Your task to perform on an android device: Open Google Image 0: 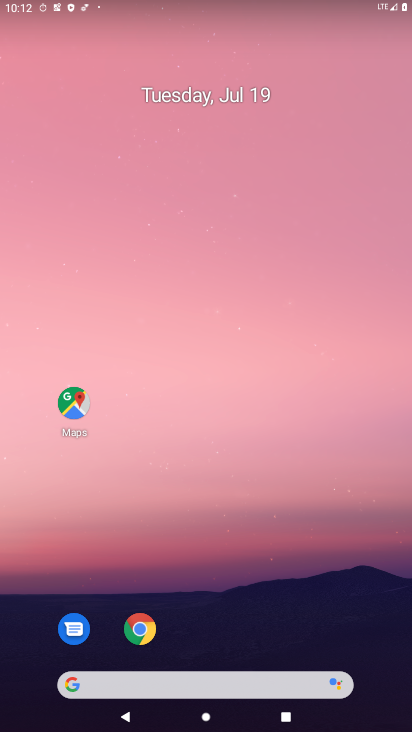
Step 0: click (75, 679)
Your task to perform on an android device: Open Google Image 1: 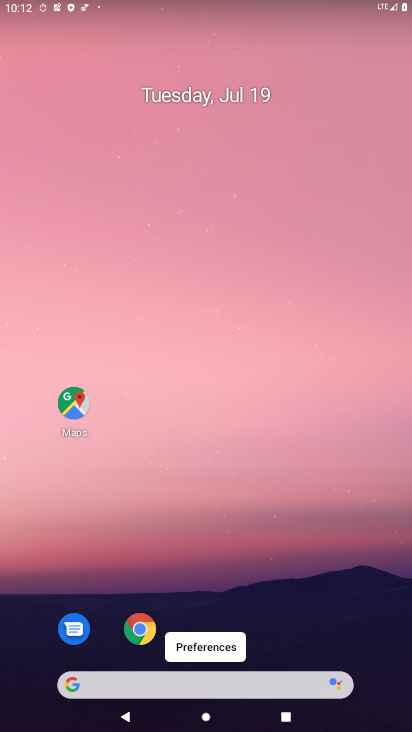
Step 1: click (74, 683)
Your task to perform on an android device: Open Google Image 2: 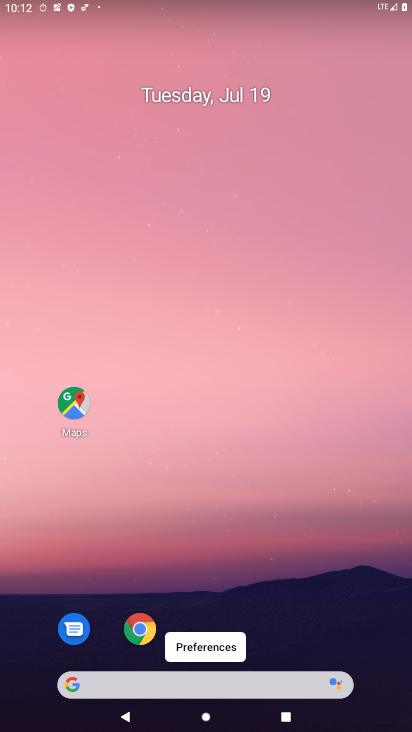
Step 2: click (74, 683)
Your task to perform on an android device: Open Google Image 3: 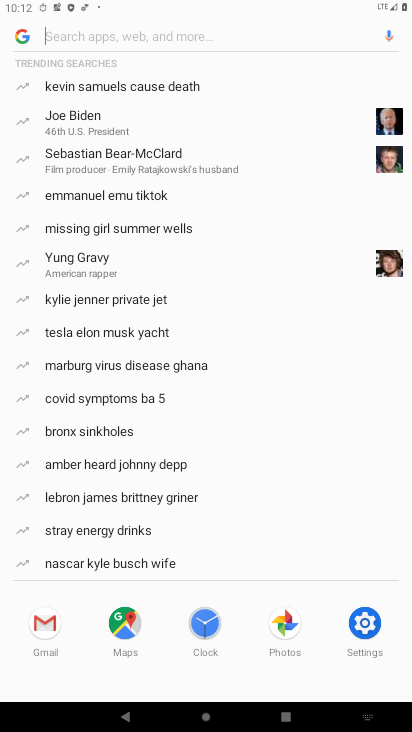
Step 3: click (23, 35)
Your task to perform on an android device: Open Google Image 4: 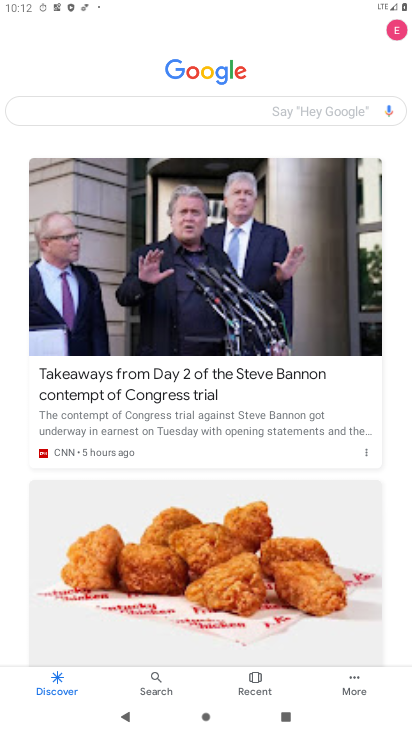
Step 4: task complete